Your task to perform on an android device: Go to Reddit.com Image 0: 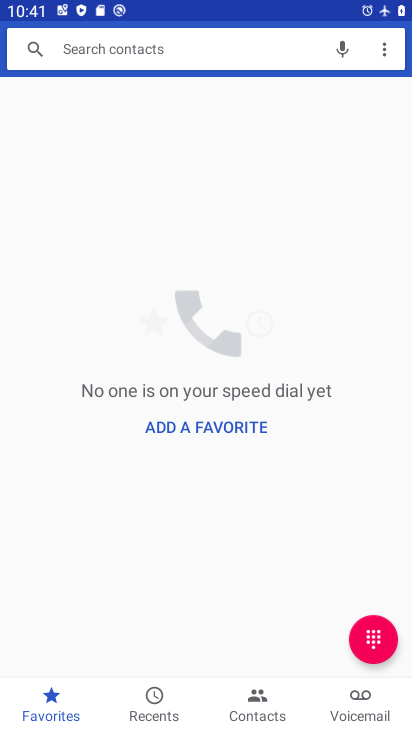
Step 0: press home button
Your task to perform on an android device: Go to Reddit.com Image 1: 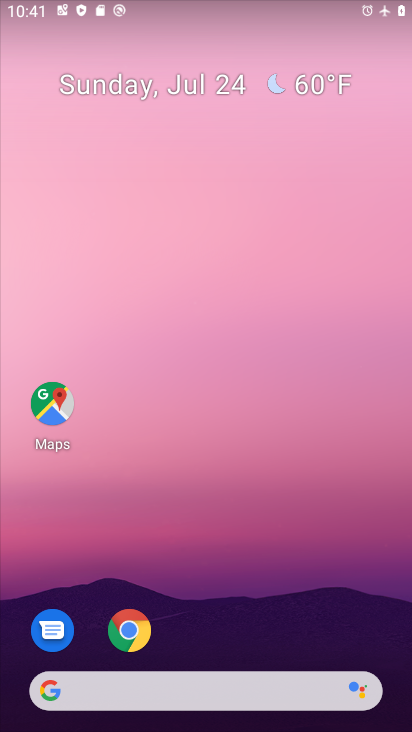
Step 1: click (136, 637)
Your task to perform on an android device: Go to Reddit.com Image 2: 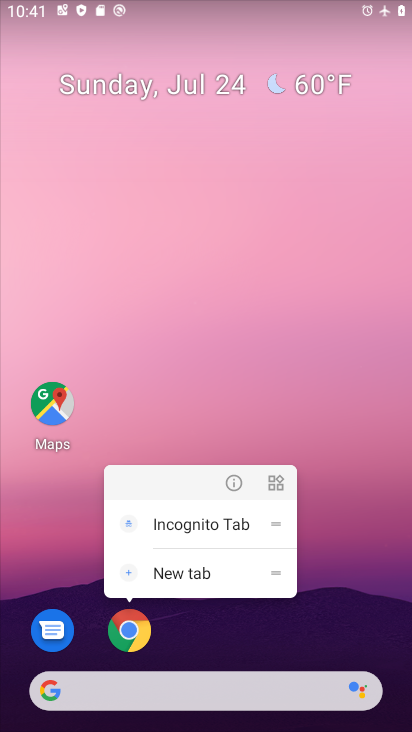
Step 2: click (133, 638)
Your task to perform on an android device: Go to Reddit.com Image 3: 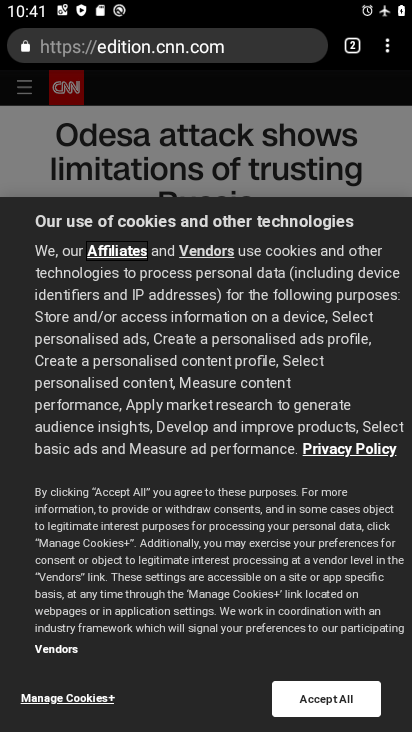
Step 3: click (141, 44)
Your task to perform on an android device: Go to Reddit.com Image 4: 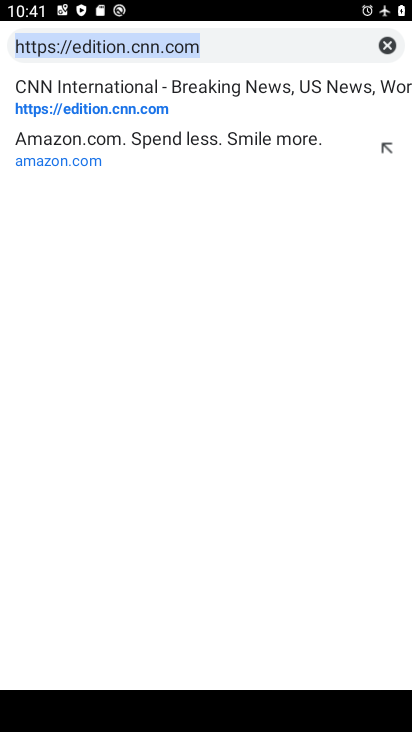
Step 4: type "Reddit.com"
Your task to perform on an android device: Go to Reddit.com Image 5: 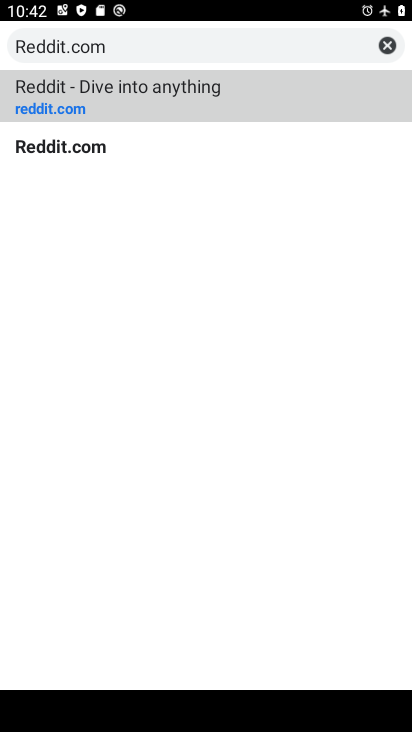
Step 5: click (164, 91)
Your task to perform on an android device: Go to Reddit.com Image 6: 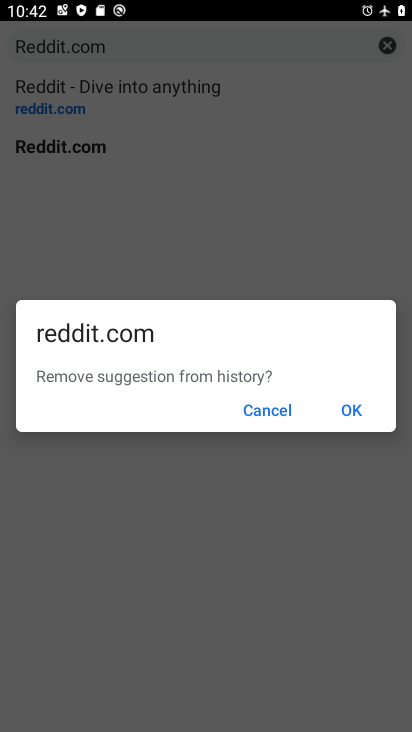
Step 6: click (271, 409)
Your task to perform on an android device: Go to Reddit.com Image 7: 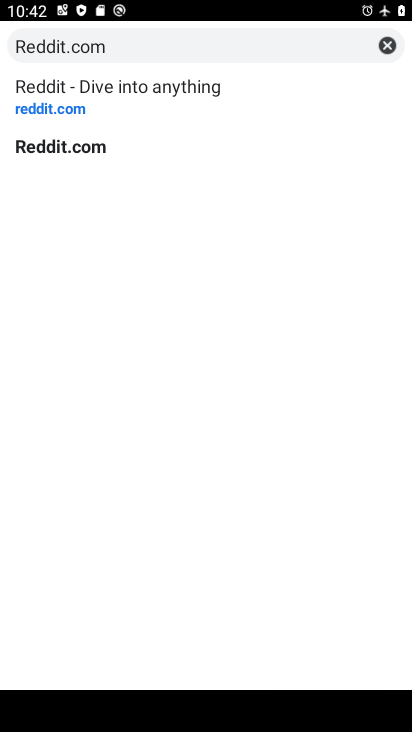
Step 7: click (127, 102)
Your task to perform on an android device: Go to Reddit.com Image 8: 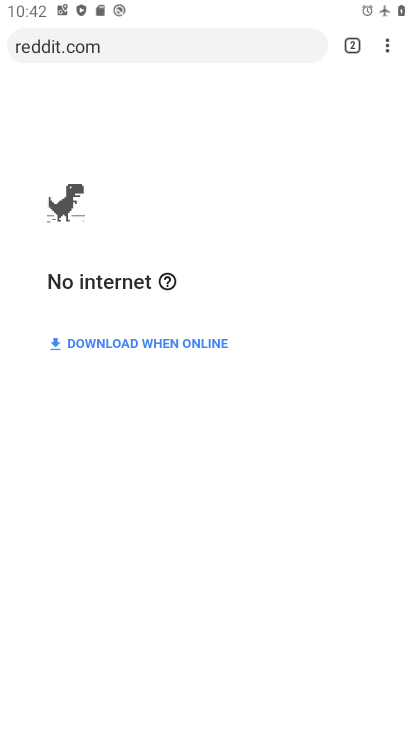
Step 8: task complete